Your task to perform on an android device: Open Yahoo.com Image 0: 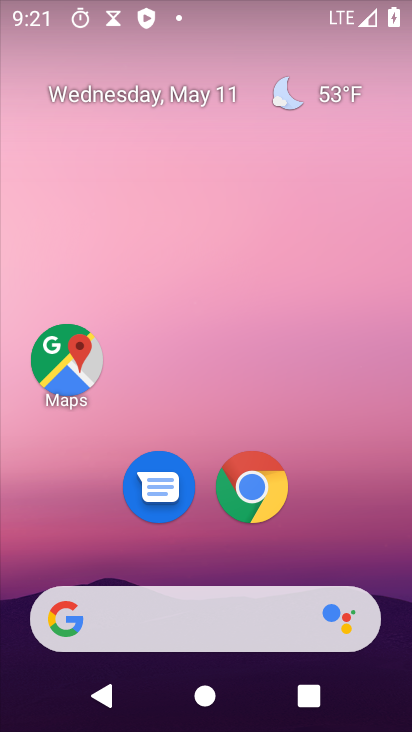
Step 0: click (254, 486)
Your task to perform on an android device: Open Yahoo.com Image 1: 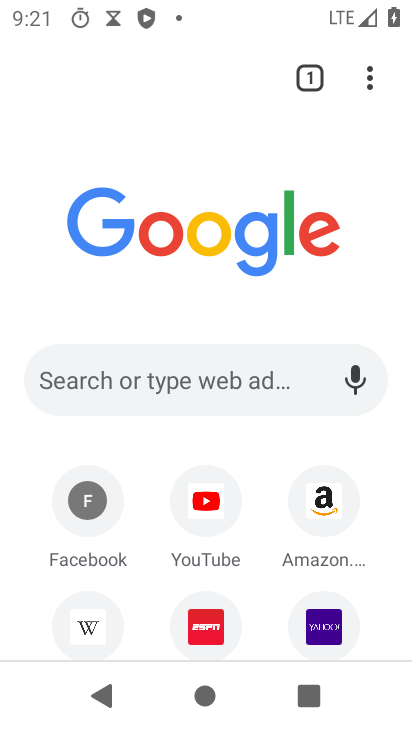
Step 1: click (224, 385)
Your task to perform on an android device: Open Yahoo.com Image 2: 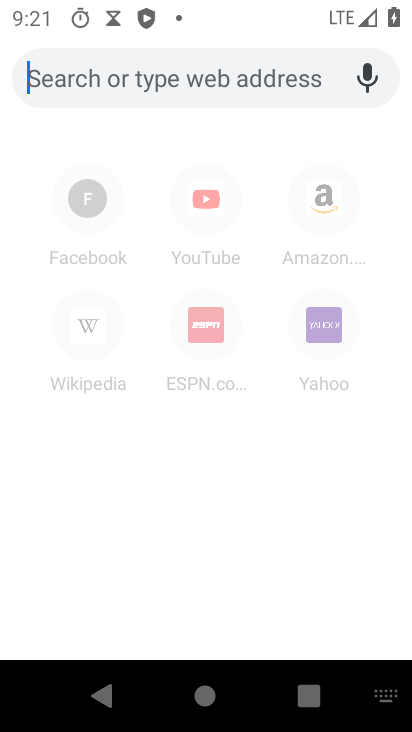
Step 2: type "Yahoo.com"
Your task to perform on an android device: Open Yahoo.com Image 3: 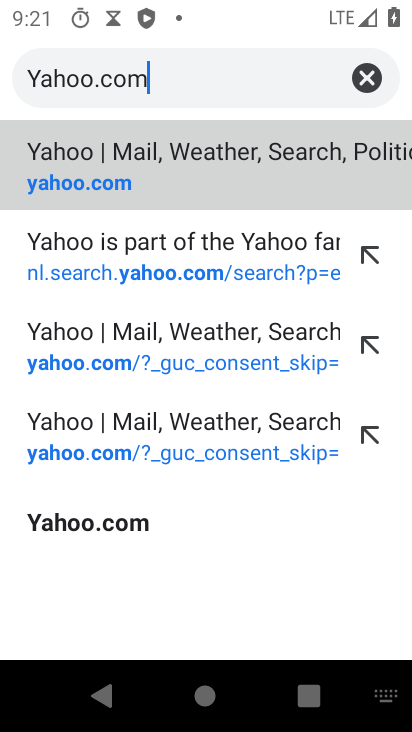
Step 3: click (104, 522)
Your task to perform on an android device: Open Yahoo.com Image 4: 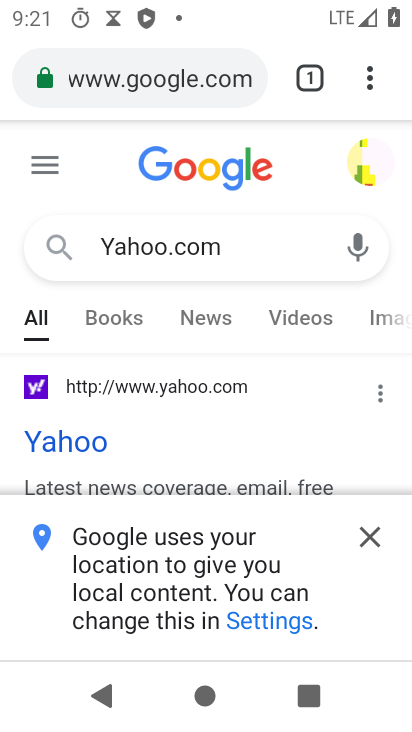
Step 4: click (366, 538)
Your task to perform on an android device: Open Yahoo.com Image 5: 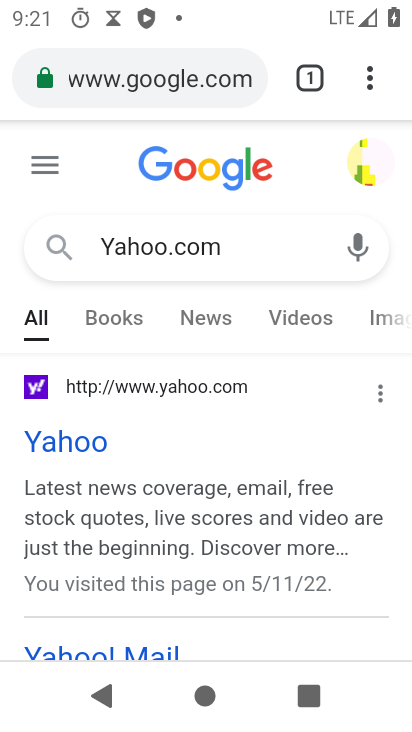
Step 5: click (82, 438)
Your task to perform on an android device: Open Yahoo.com Image 6: 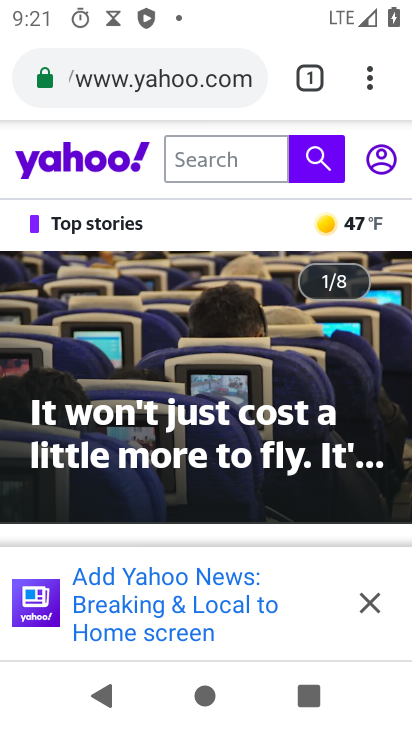
Step 6: task complete